Your task to perform on an android device: Open wifi settings Image 0: 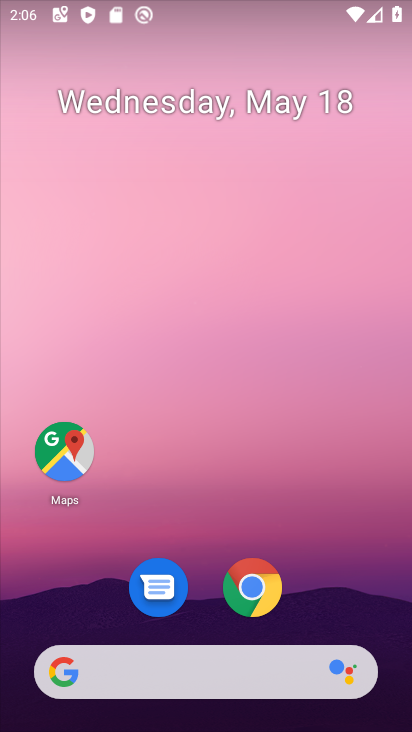
Step 0: drag from (331, 596) to (299, 50)
Your task to perform on an android device: Open wifi settings Image 1: 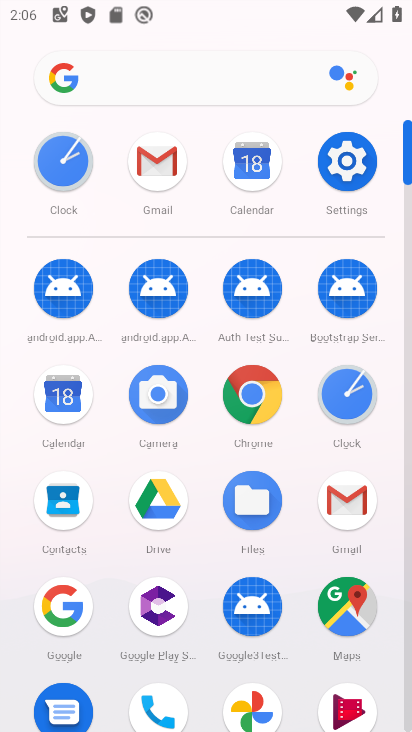
Step 1: click (341, 150)
Your task to perform on an android device: Open wifi settings Image 2: 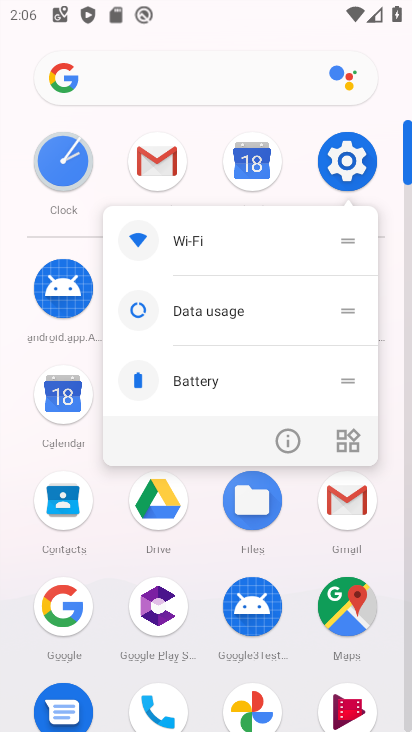
Step 2: click (178, 243)
Your task to perform on an android device: Open wifi settings Image 3: 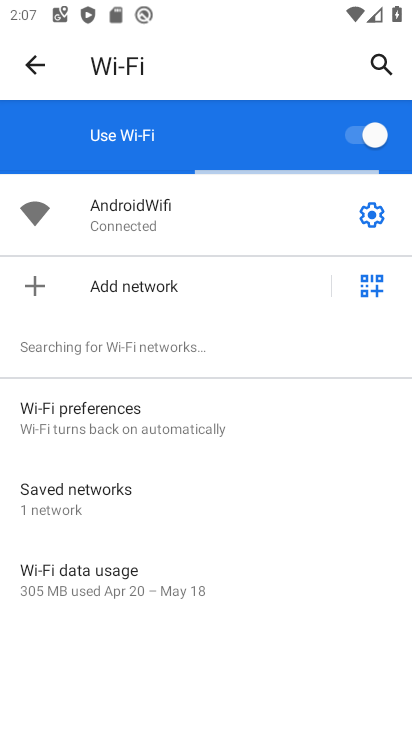
Step 3: task complete